Your task to perform on an android device: turn on notifications settings in the gmail app Image 0: 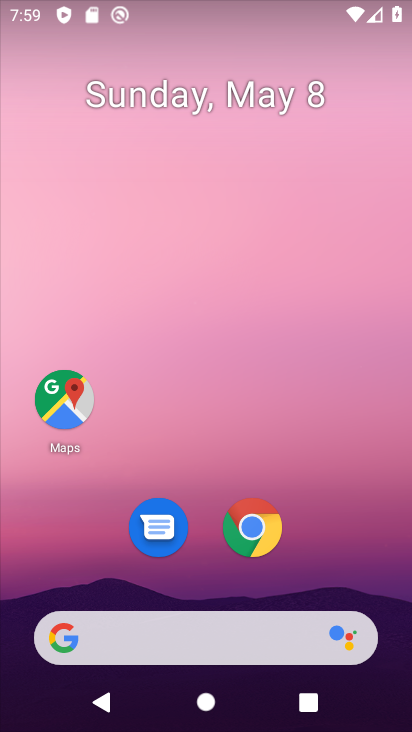
Step 0: drag from (349, 567) to (220, 8)
Your task to perform on an android device: turn on notifications settings in the gmail app Image 1: 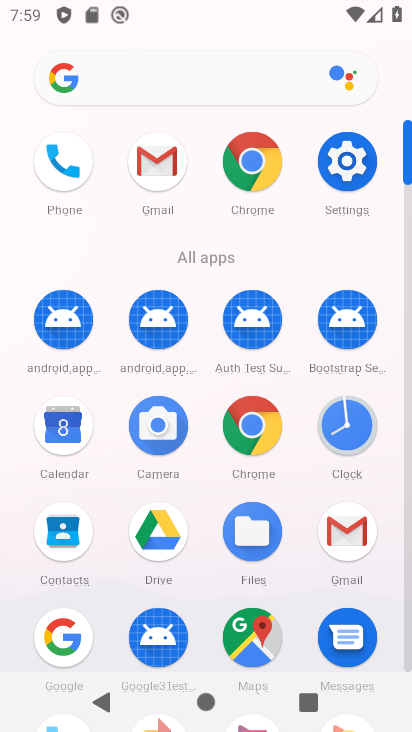
Step 1: click (345, 524)
Your task to perform on an android device: turn on notifications settings in the gmail app Image 2: 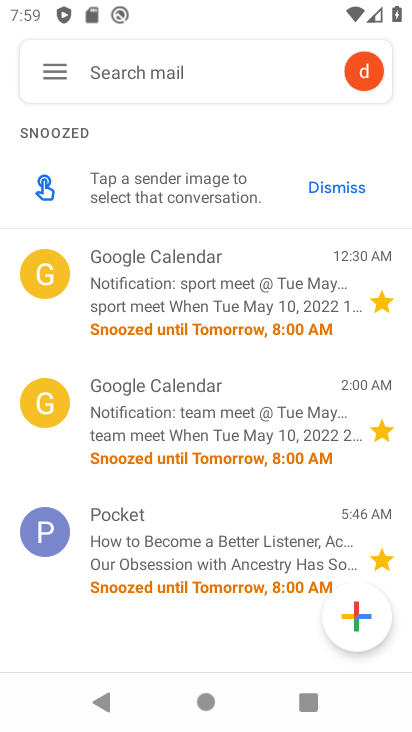
Step 2: click (55, 73)
Your task to perform on an android device: turn on notifications settings in the gmail app Image 3: 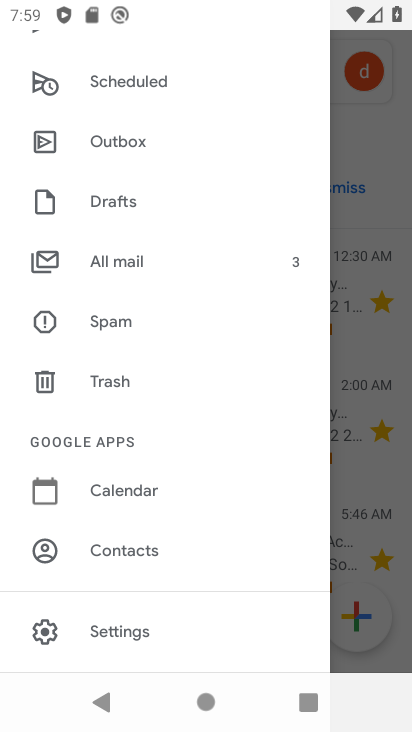
Step 3: click (131, 618)
Your task to perform on an android device: turn on notifications settings in the gmail app Image 4: 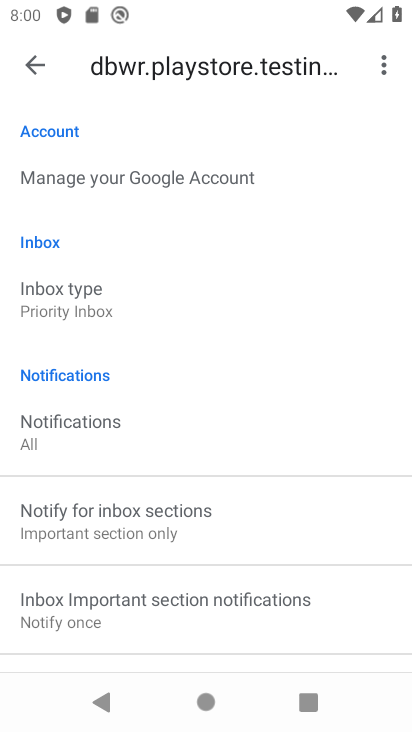
Step 4: drag from (285, 559) to (300, 158)
Your task to perform on an android device: turn on notifications settings in the gmail app Image 5: 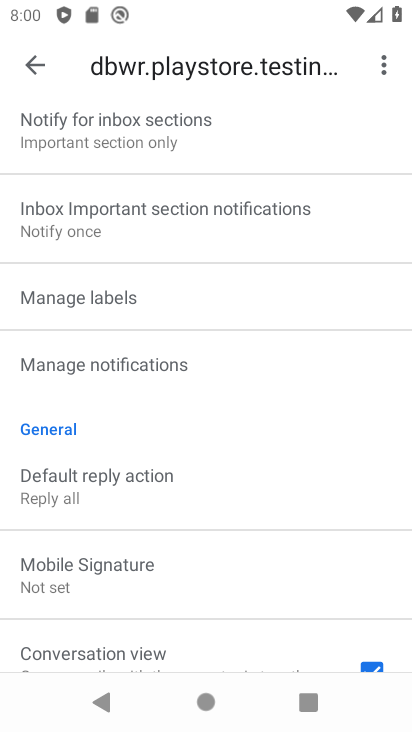
Step 5: click (154, 363)
Your task to perform on an android device: turn on notifications settings in the gmail app Image 6: 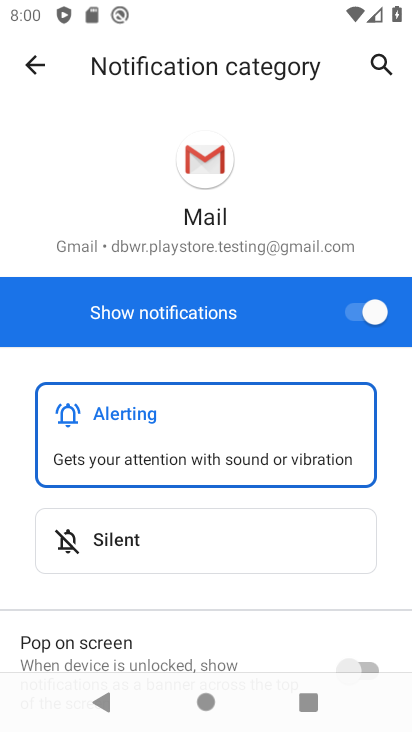
Step 6: task complete